Your task to perform on an android device: turn off smart reply in the gmail app Image 0: 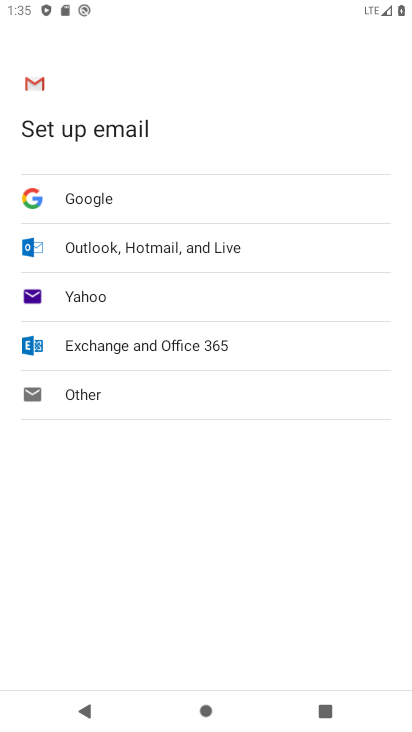
Step 0: press home button
Your task to perform on an android device: turn off smart reply in the gmail app Image 1: 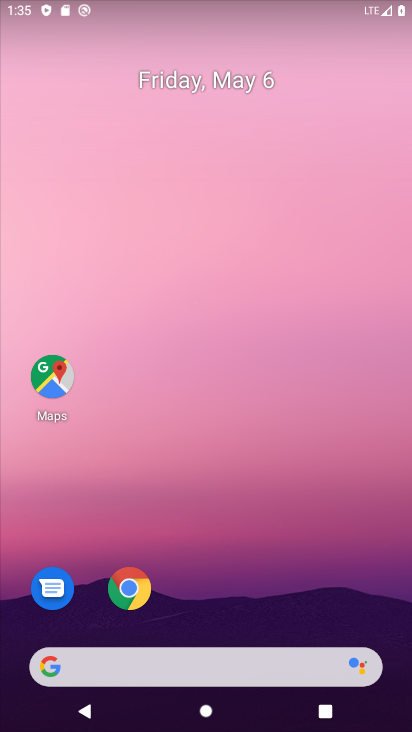
Step 1: drag from (385, 591) to (297, 41)
Your task to perform on an android device: turn off smart reply in the gmail app Image 2: 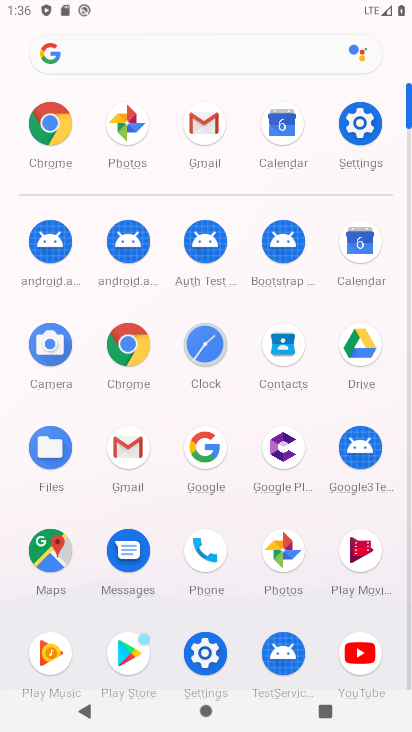
Step 2: click (136, 461)
Your task to perform on an android device: turn off smart reply in the gmail app Image 3: 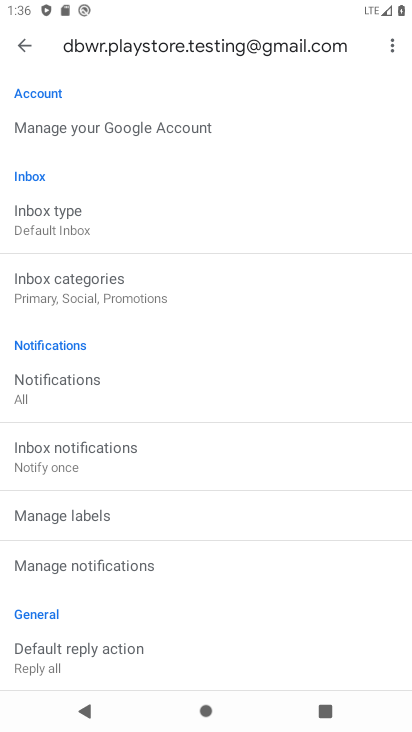
Step 3: drag from (210, 648) to (257, 367)
Your task to perform on an android device: turn off smart reply in the gmail app Image 4: 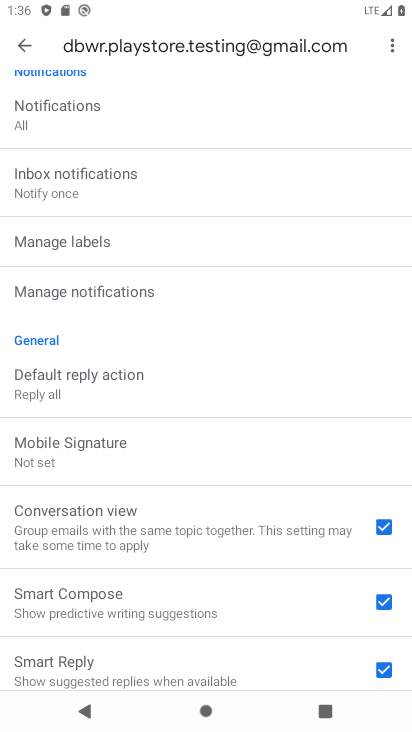
Step 4: drag from (269, 613) to (269, 390)
Your task to perform on an android device: turn off smart reply in the gmail app Image 5: 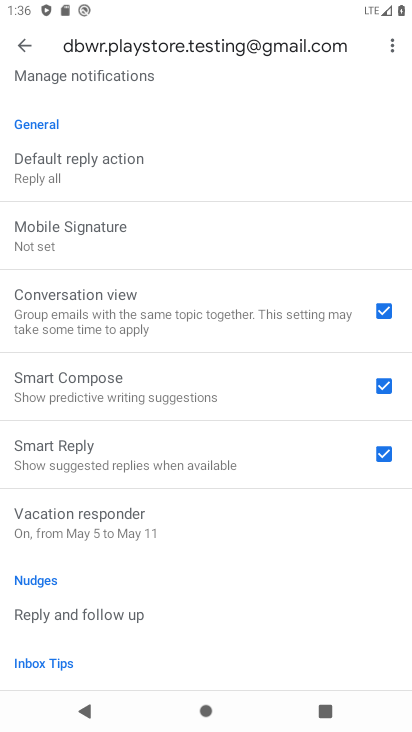
Step 5: click (383, 459)
Your task to perform on an android device: turn off smart reply in the gmail app Image 6: 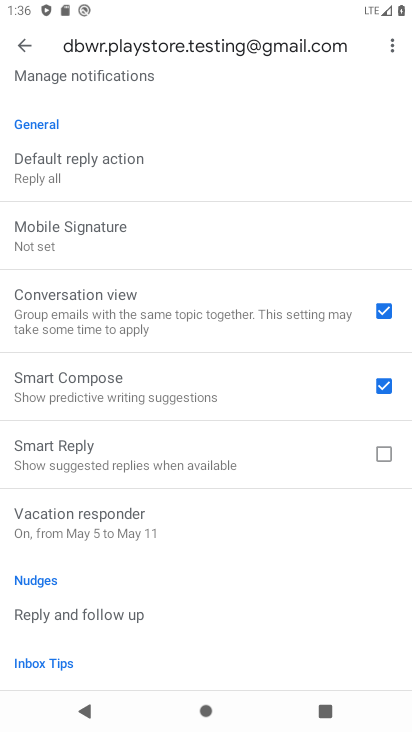
Step 6: task complete